Your task to perform on an android device: turn on data saver in the chrome app Image 0: 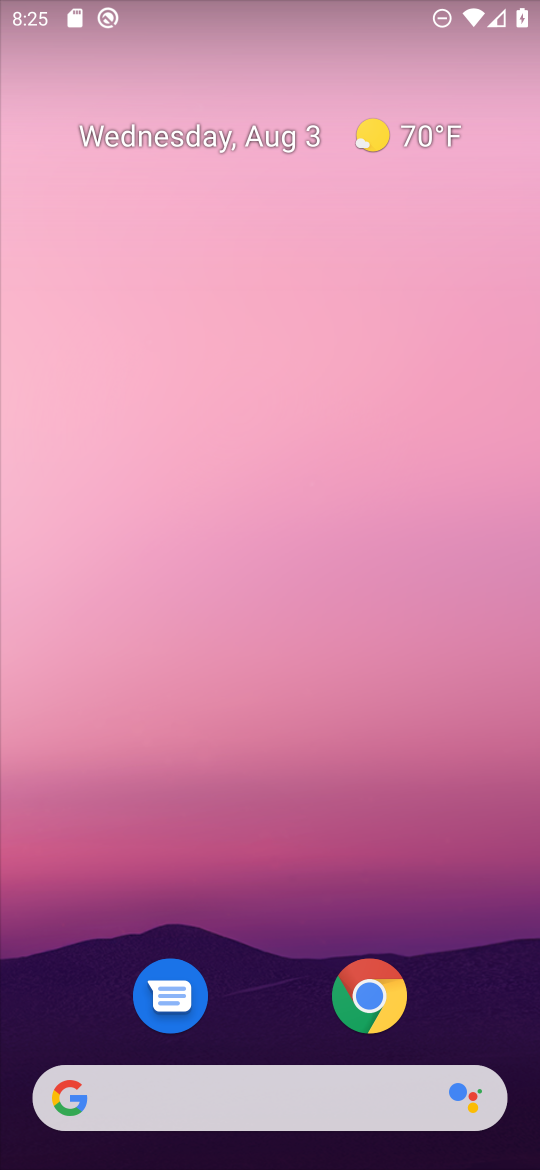
Step 0: click (378, 997)
Your task to perform on an android device: turn on data saver in the chrome app Image 1: 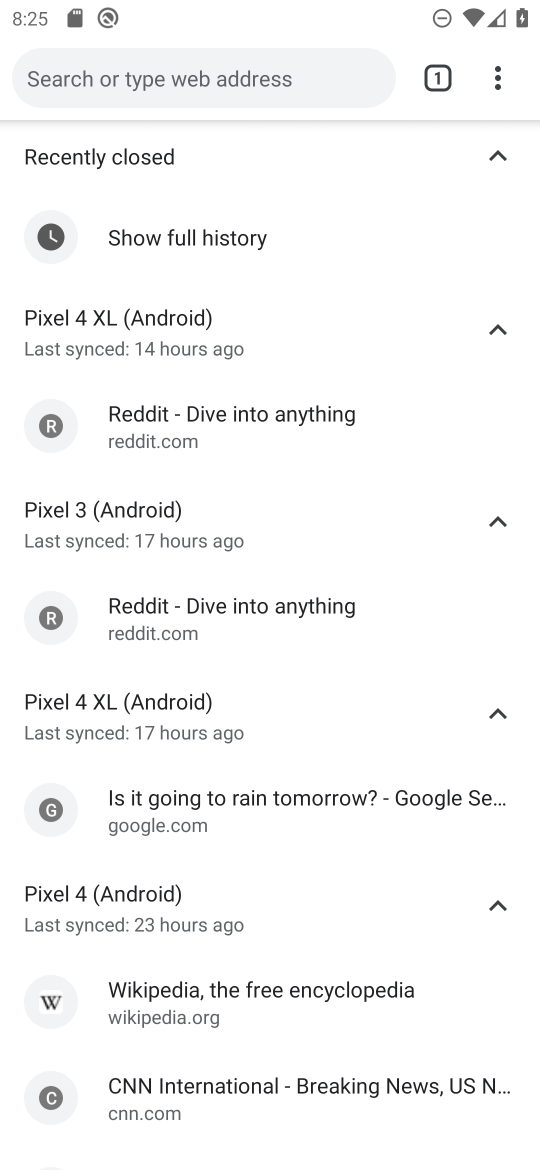
Step 1: click (485, 243)
Your task to perform on an android device: turn on data saver in the chrome app Image 2: 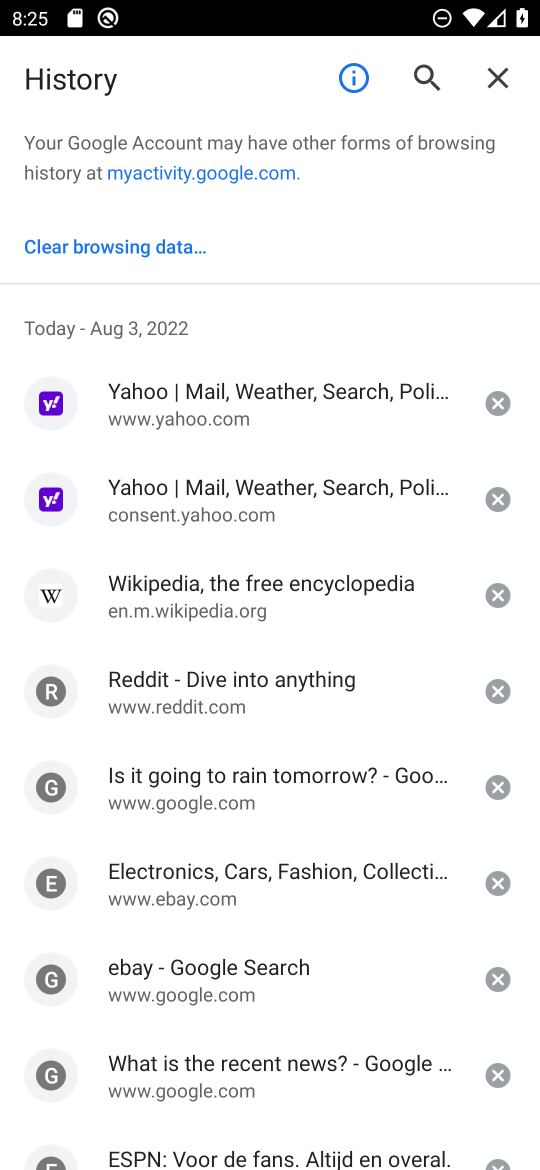
Step 2: press back button
Your task to perform on an android device: turn on data saver in the chrome app Image 3: 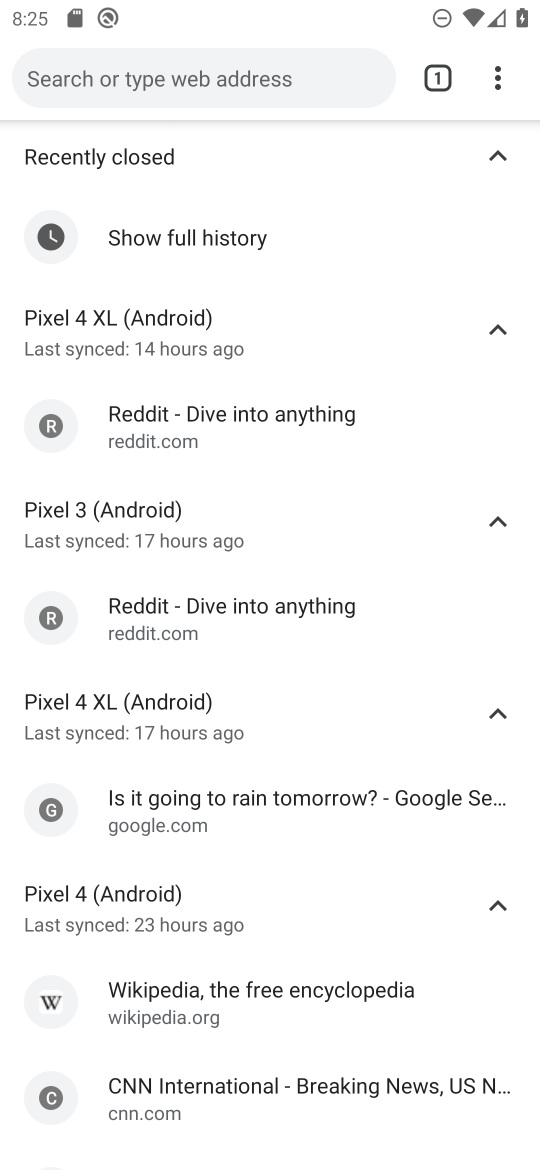
Step 3: press back button
Your task to perform on an android device: turn on data saver in the chrome app Image 4: 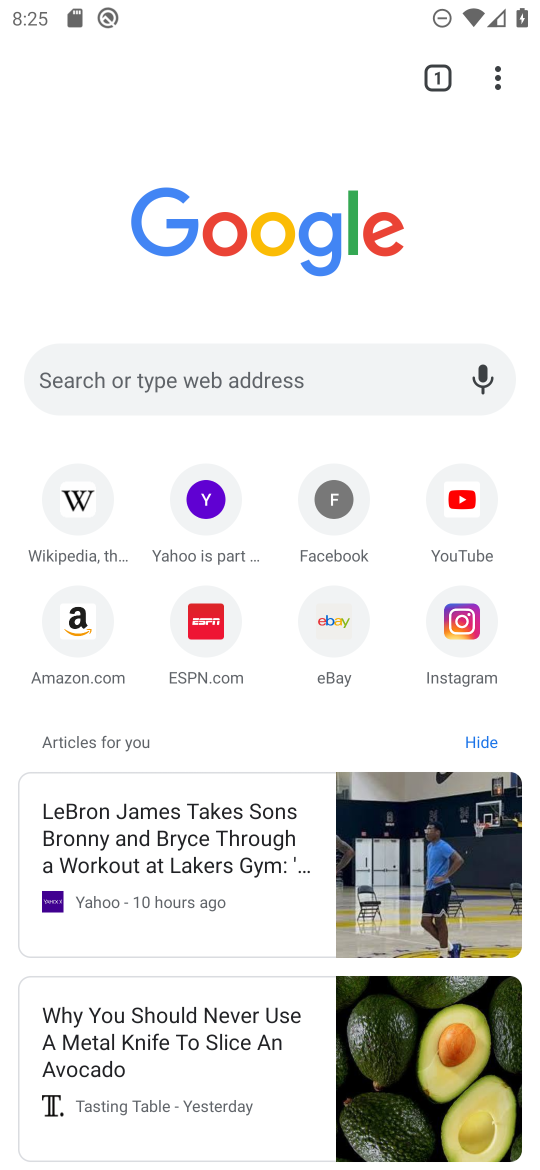
Step 4: click (493, 84)
Your task to perform on an android device: turn on data saver in the chrome app Image 5: 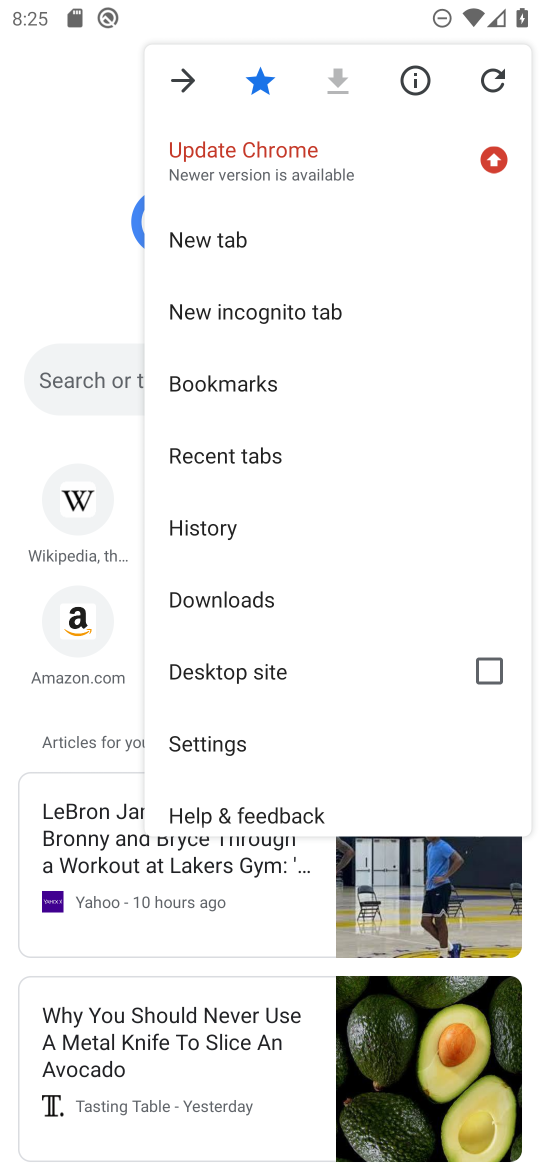
Step 5: click (226, 733)
Your task to perform on an android device: turn on data saver in the chrome app Image 6: 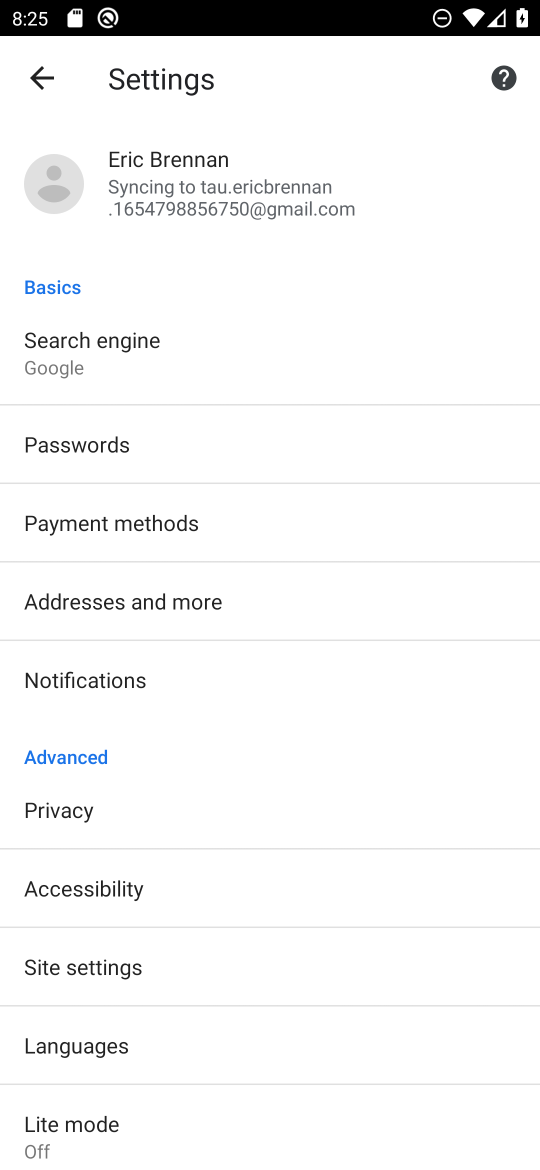
Step 6: click (157, 1126)
Your task to perform on an android device: turn on data saver in the chrome app Image 7: 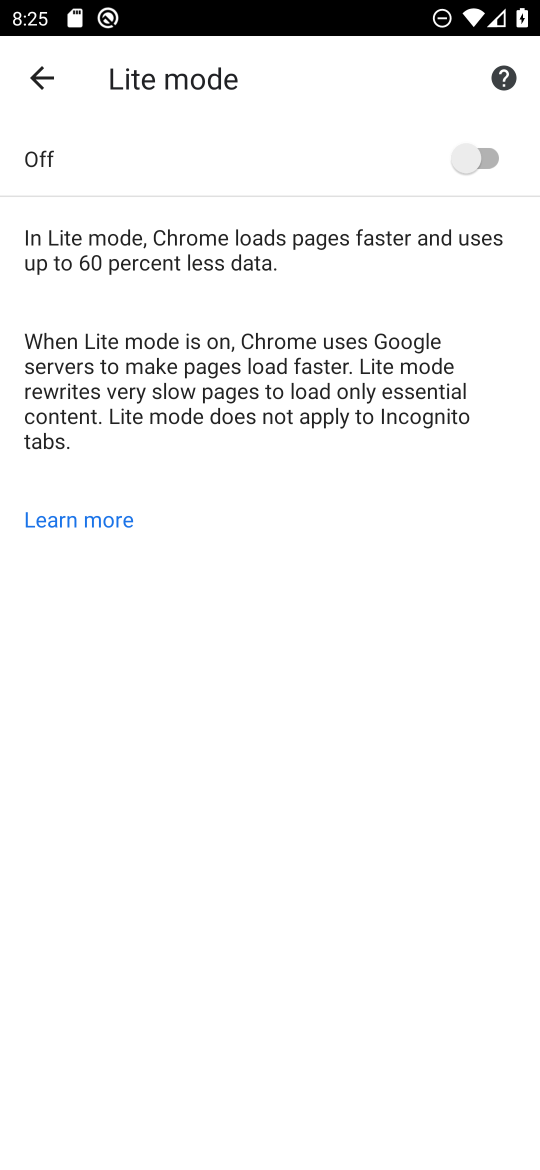
Step 7: click (476, 155)
Your task to perform on an android device: turn on data saver in the chrome app Image 8: 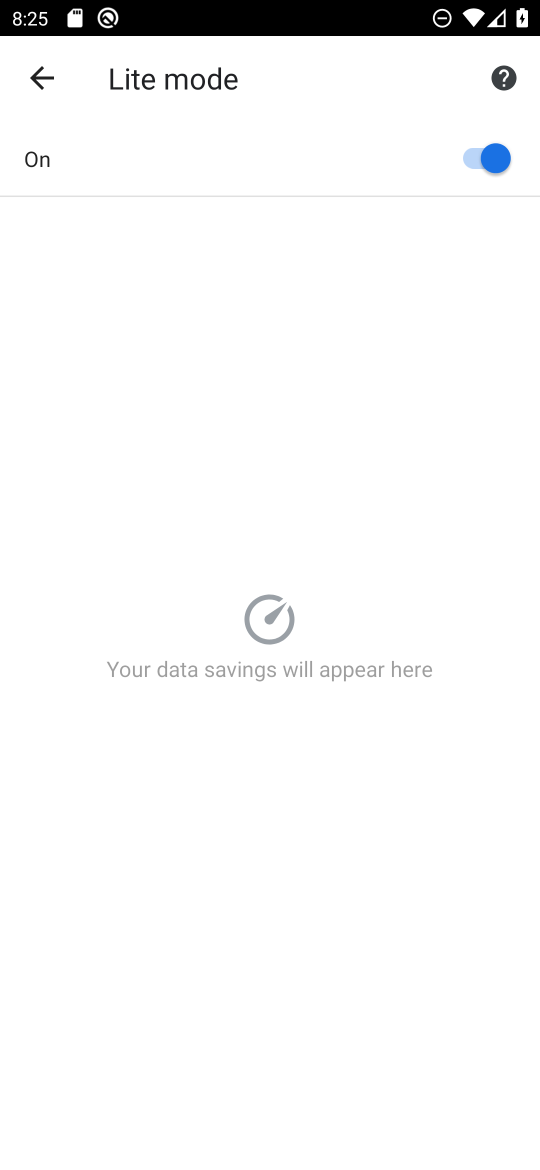
Step 8: task complete